Your task to perform on an android device: Go to Amazon Image 0: 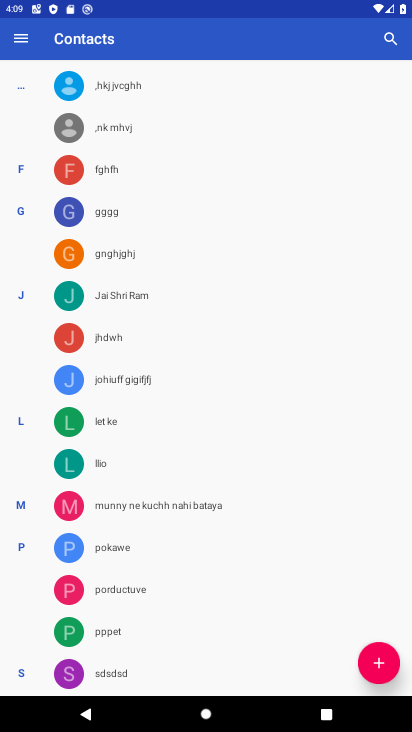
Step 0: press home button
Your task to perform on an android device: Go to Amazon Image 1: 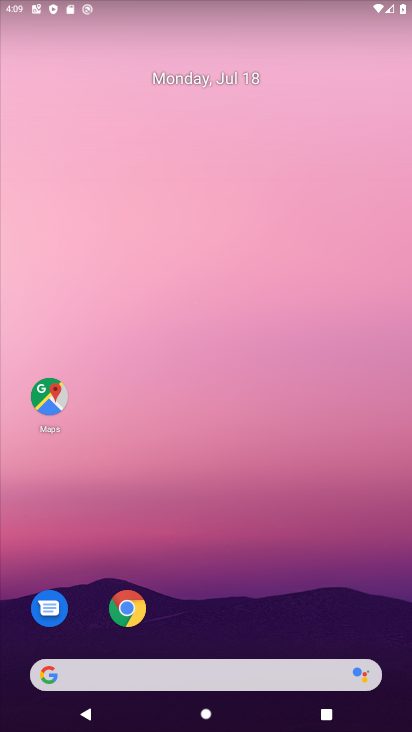
Step 1: click (130, 617)
Your task to perform on an android device: Go to Amazon Image 2: 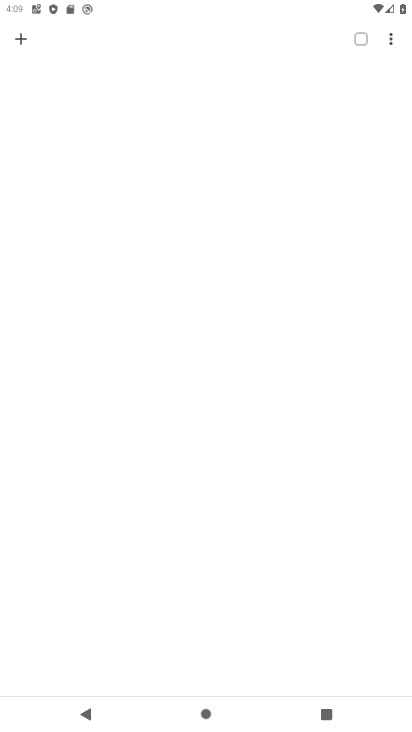
Step 2: click (24, 37)
Your task to perform on an android device: Go to Amazon Image 3: 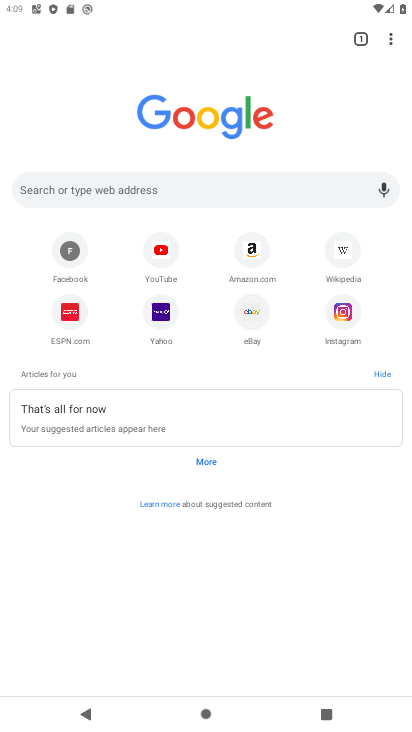
Step 3: click (254, 250)
Your task to perform on an android device: Go to Amazon Image 4: 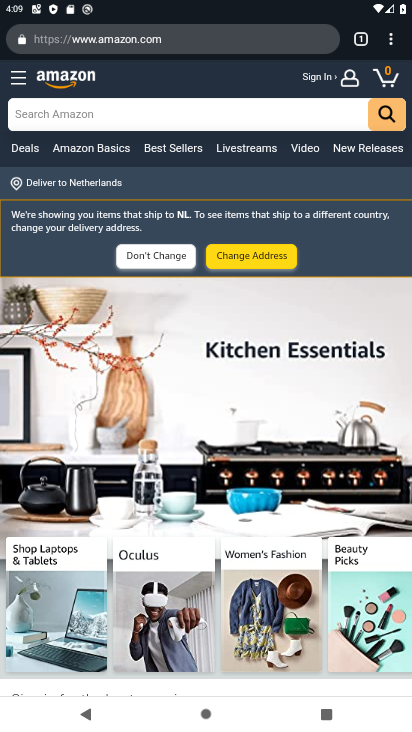
Step 4: task complete